Your task to perform on an android device: What's the weather like in New York? Image 0: 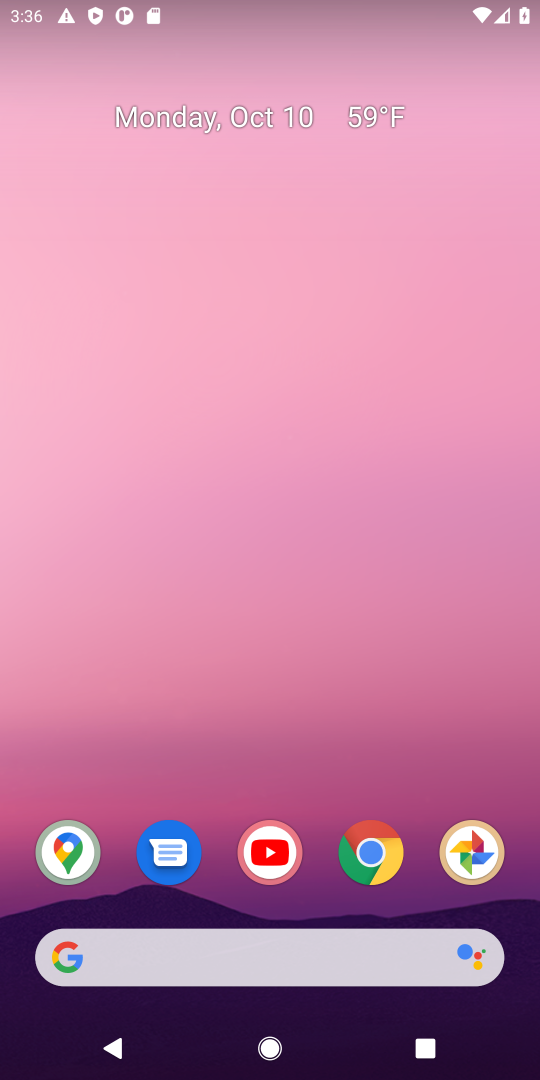
Step 0: click (380, 861)
Your task to perform on an android device: What's the weather like in New York? Image 1: 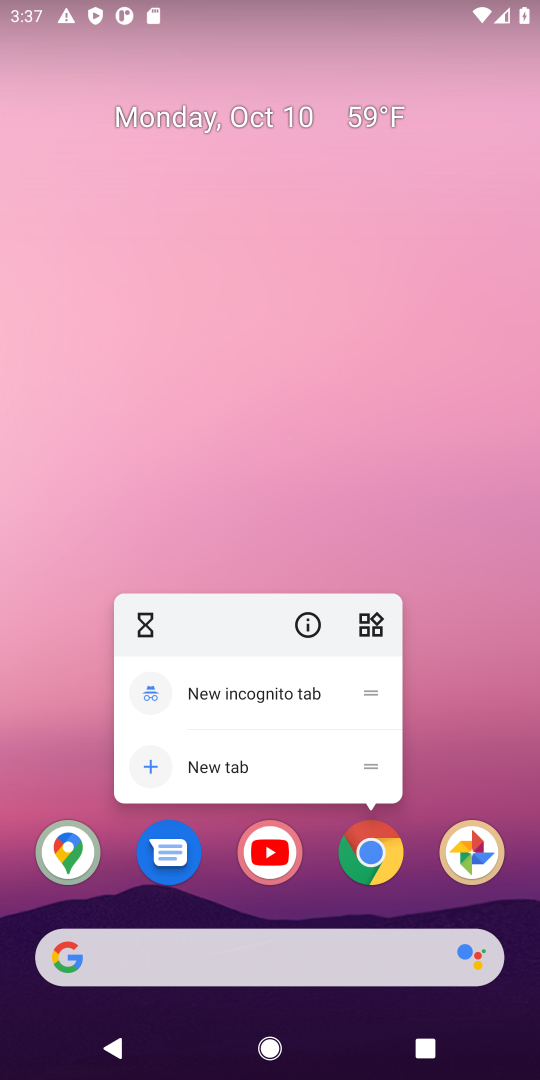
Step 1: click (380, 861)
Your task to perform on an android device: What's the weather like in New York? Image 2: 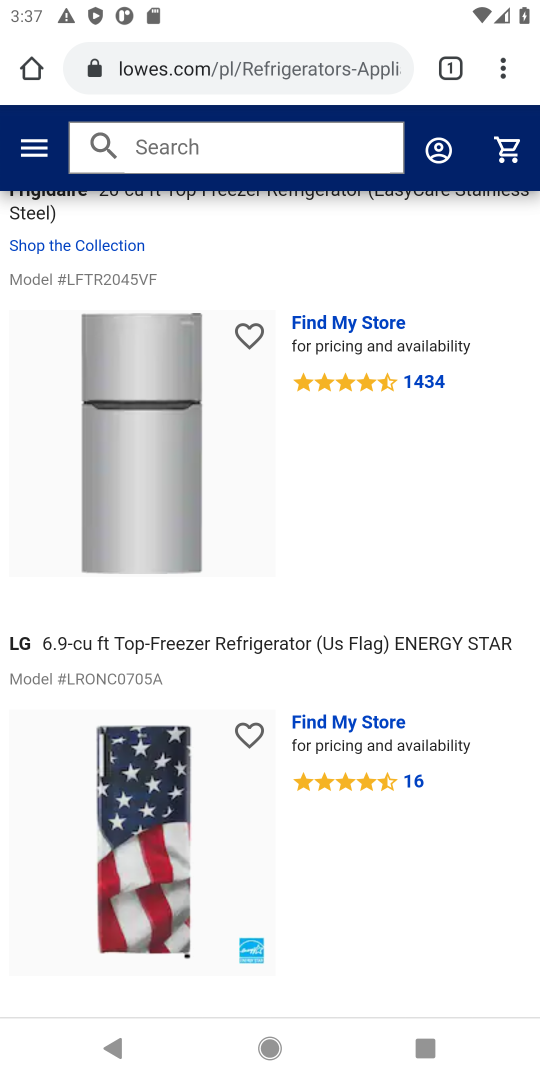
Step 2: click (344, 64)
Your task to perform on an android device: What's the weather like in New York? Image 3: 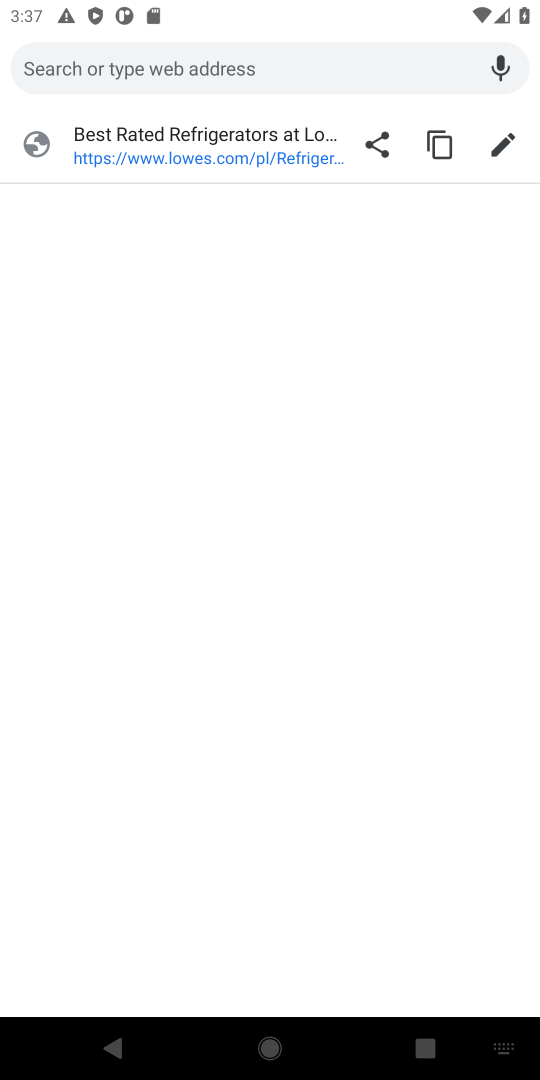
Step 3: type "weather like in New York"
Your task to perform on an android device: What's the weather like in New York? Image 4: 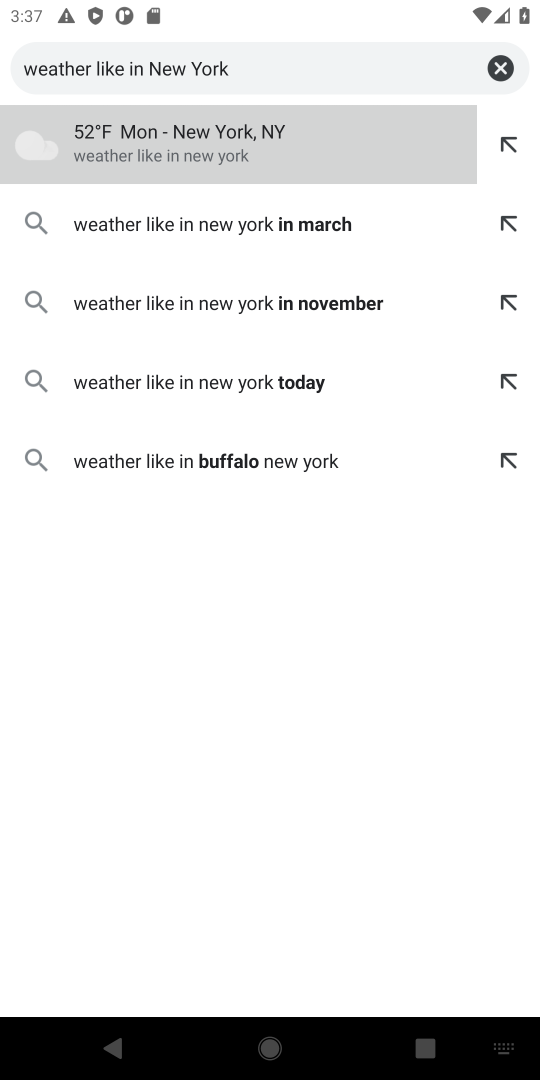
Step 4: type ""
Your task to perform on an android device: What's the weather like in New York? Image 5: 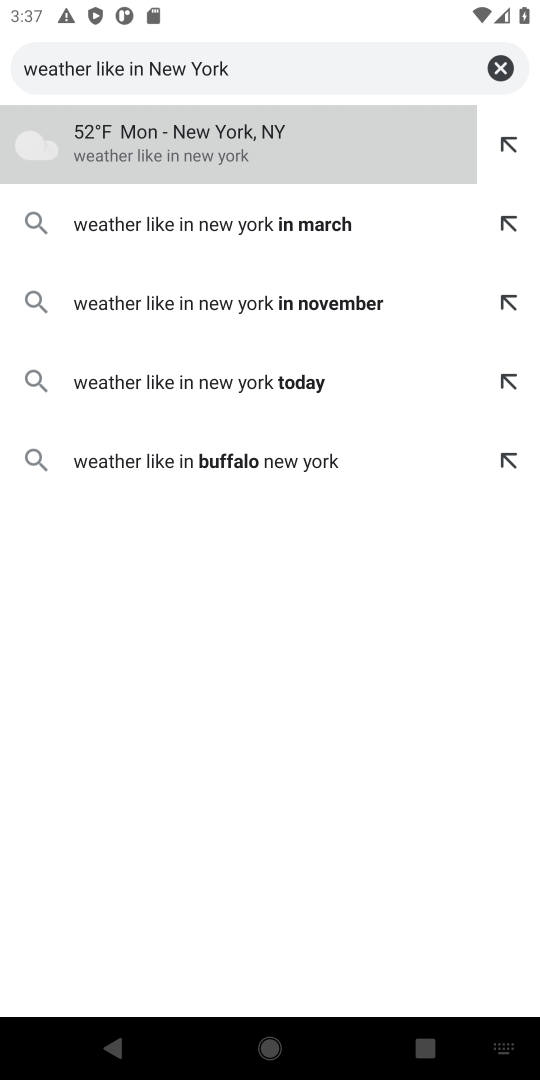
Step 5: click (338, 157)
Your task to perform on an android device: What's the weather like in New York? Image 6: 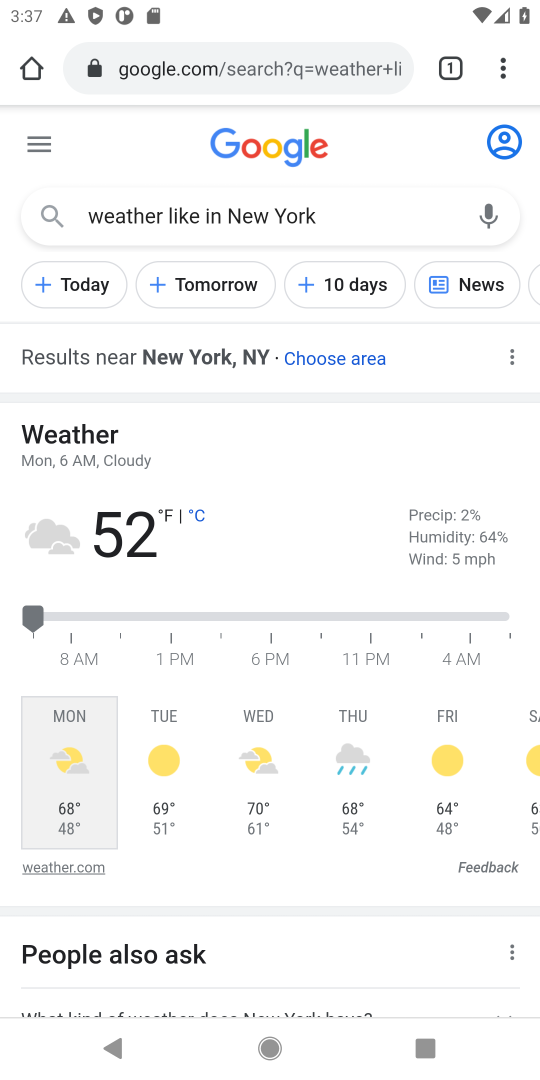
Step 6: task complete